Your task to perform on an android device: Open the stopwatch Image 0: 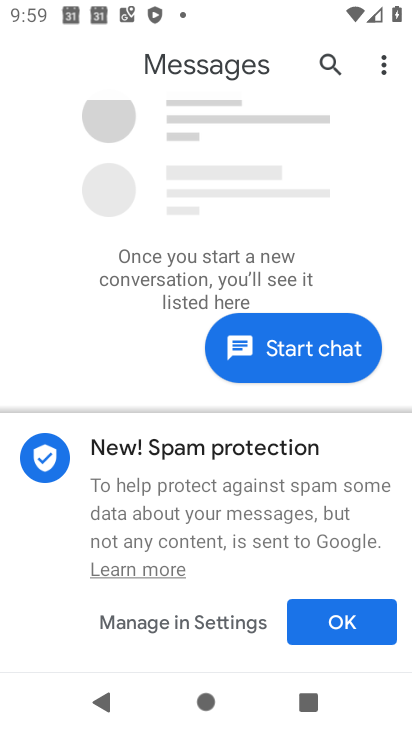
Step 0: press home button
Your task to perform on an android device: Open the stopwatch Image 1: 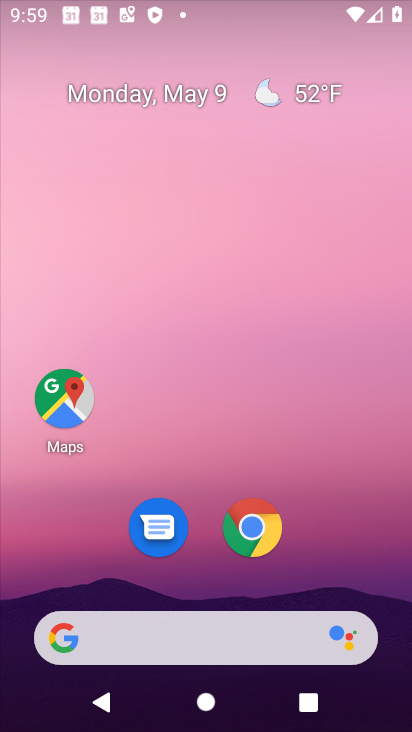
Step 1: drag from (195, 570) to (226, 45)
Your task to perform on an android device: Open the stopwatch Image 2: 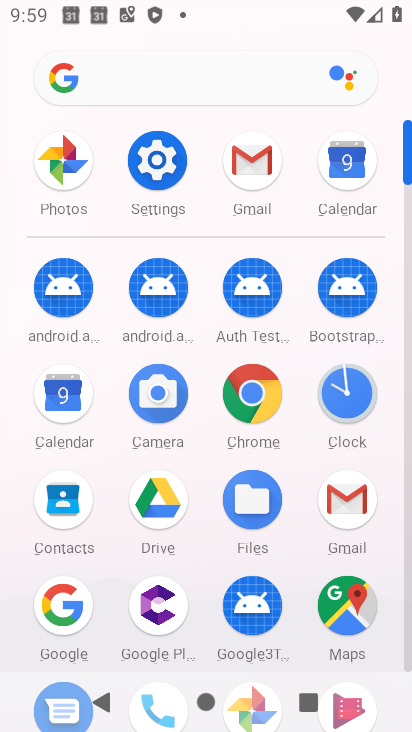
Step 2: drag from (220, 550) to (227, 229)
Your task to perform on an android device: Open the stopwatch Image 3: 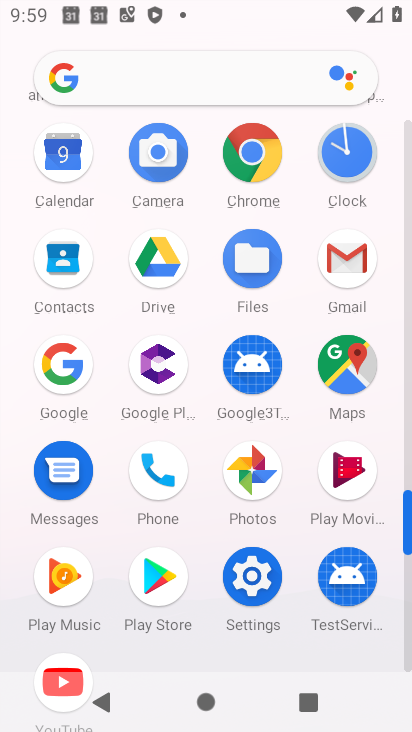
Step 3: click (350, 150)
Your task to perform on an android device: Open the stopwatch Image 4: 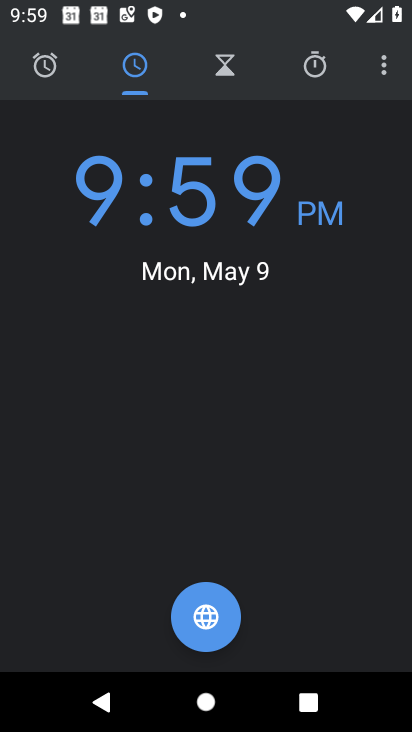
Step 4: click (319, 68)
Your task to perform on an android device: Open the stopwatch Image 5: 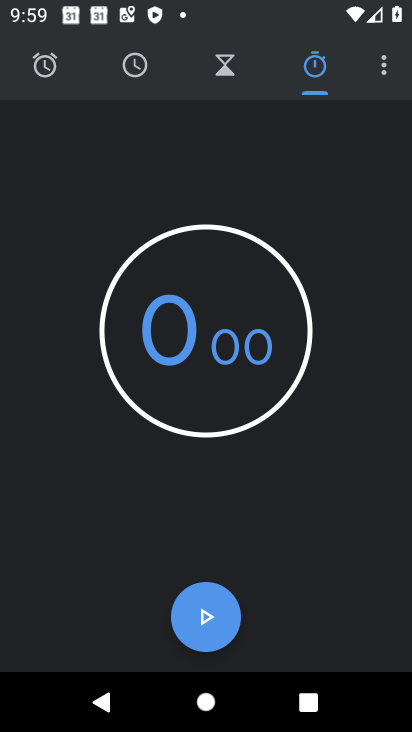
Step 5: click (204, 617)
Your task to perform on an android device: Open the stopwatch Image 6: 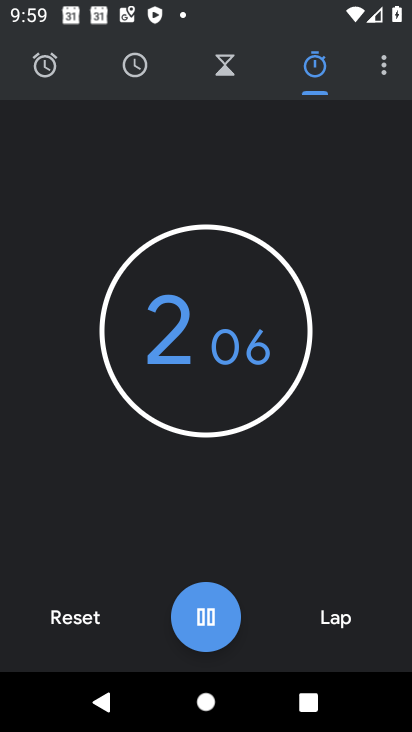
Step 6: task complete